Your task to perform on an android device: visit the assistant section in the google photos Image 0: 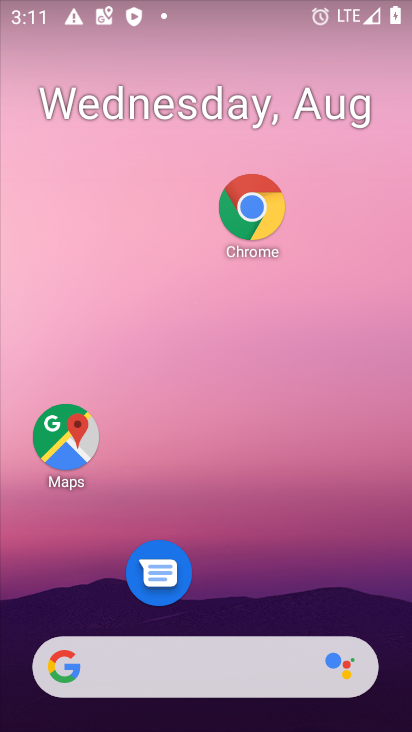
Step 0: drag from (277, 560) to (308, 155)
Your task to perform on an android device: visit the assistant section in the google photos Image 1: 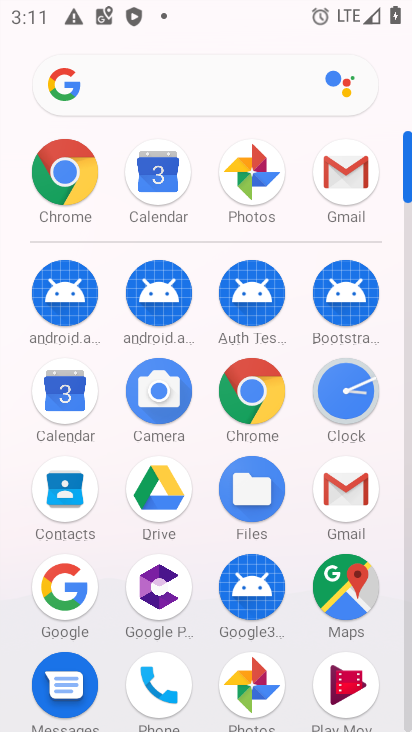
Step 1: drag from (273, 522) to (308, 299)
Your task to perform on an android device: visit the assistant section in the google photos Image 2: 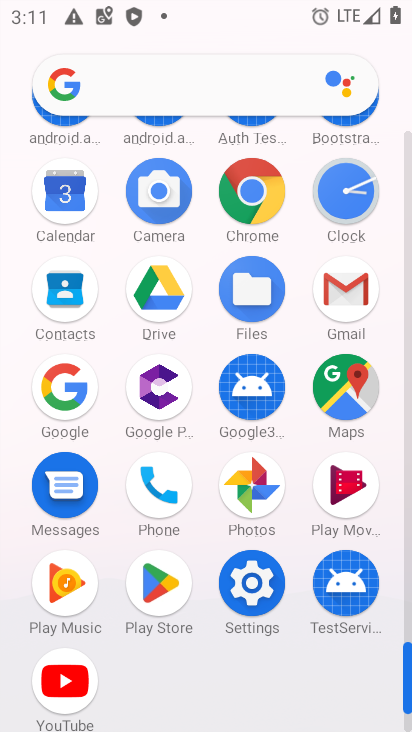
Step 2: click (271, 487)
Your task to perform on an android device: visit the assistant section in the google photos Image 3: 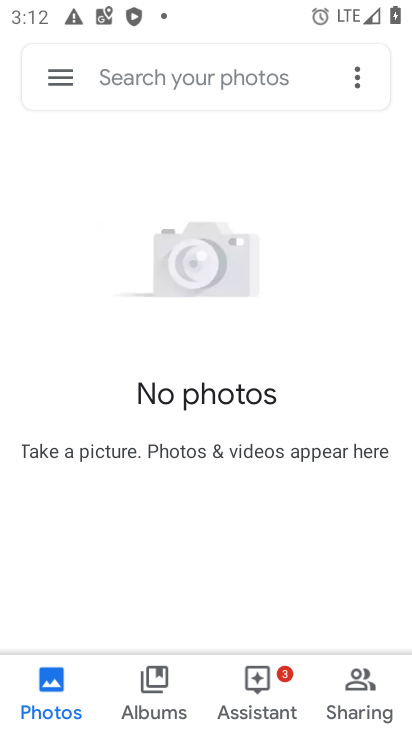
Step 3: click (256, 702)
Your task to perform on an android device: visit the assistant section in the google photos Image 4: 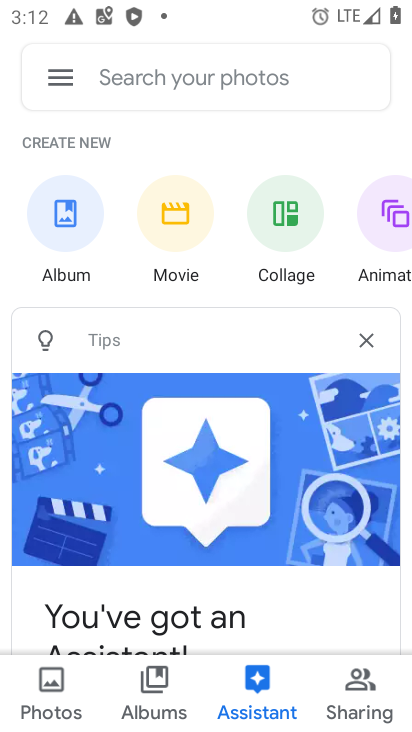
Step 4: task complete